Your task to perform on an android device: manage bookmarks in the chrome app Image 0: 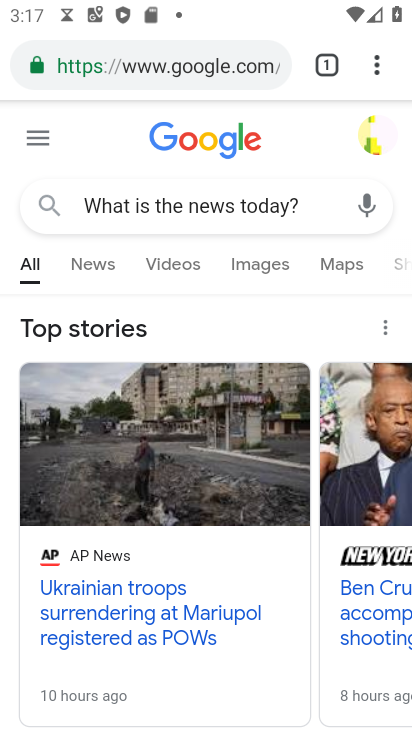
Step 0: click (366, 66)
Your task to perform on an android device: manage bookmarks in the chrome app Image 1: 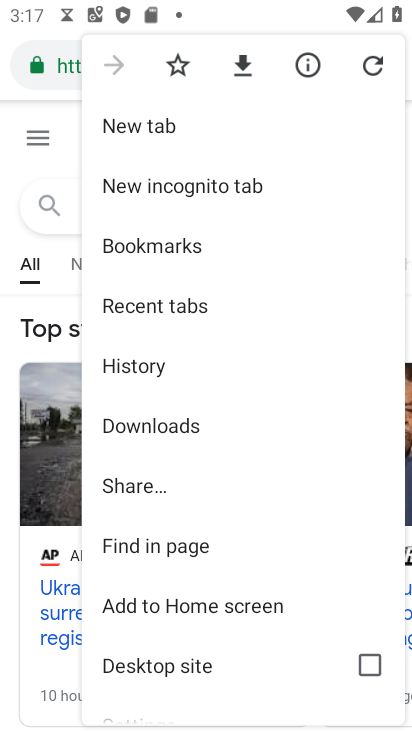
Step 1: click (296, 258)
Your task to perform on an android device: manage bookmarks in the chrome app Image 2: 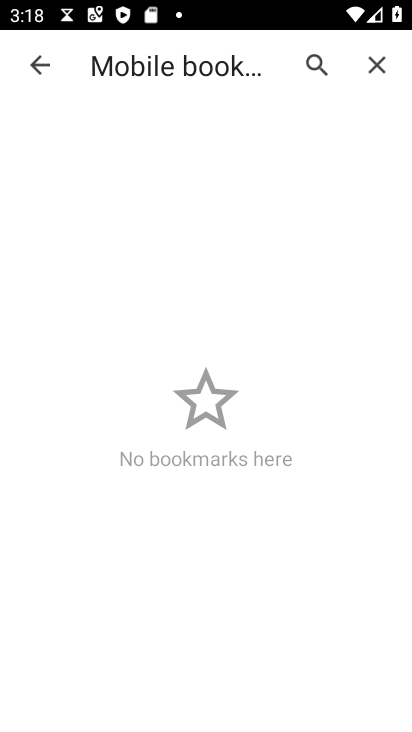
Step 2: task complete